Your task to perform on an android device: change the clock display to digital Image 0: 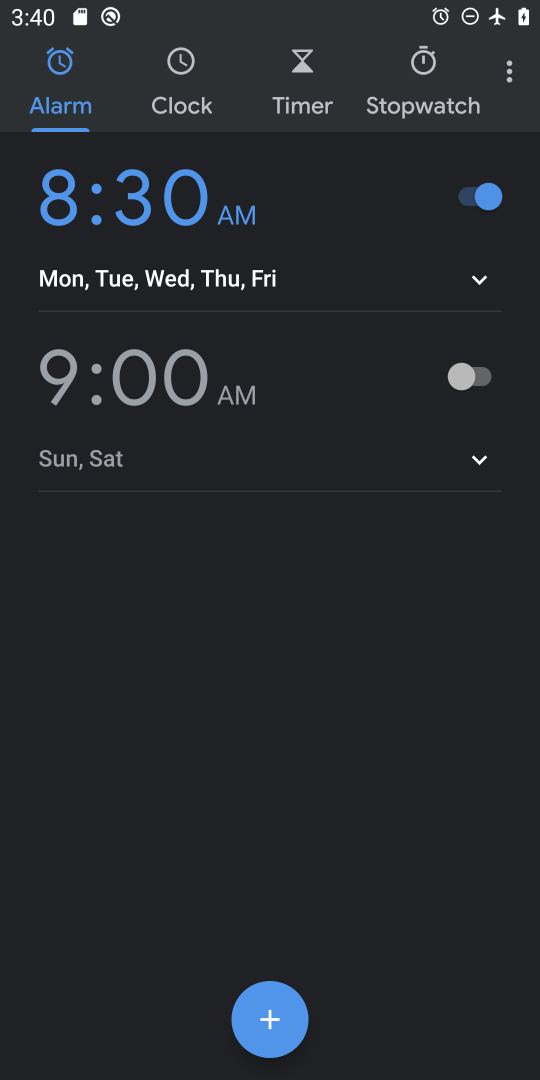
Step 0: click (514, 74)
Your task to perform on an android device: change the clock display to digital Image 1: 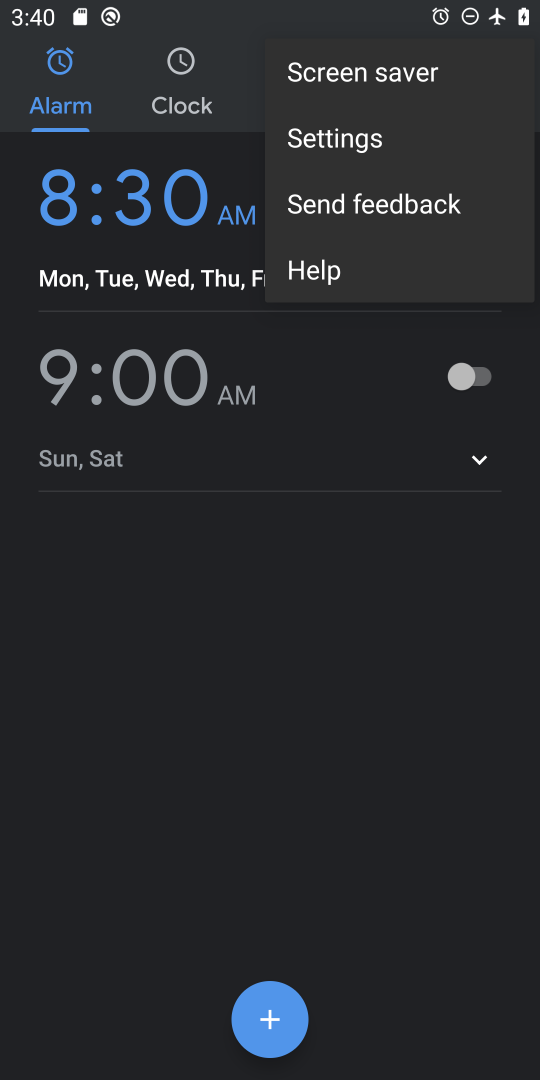
Step 1: click (412, 134)
Your task to perform on an android device: change the clock display to digital Image 2: 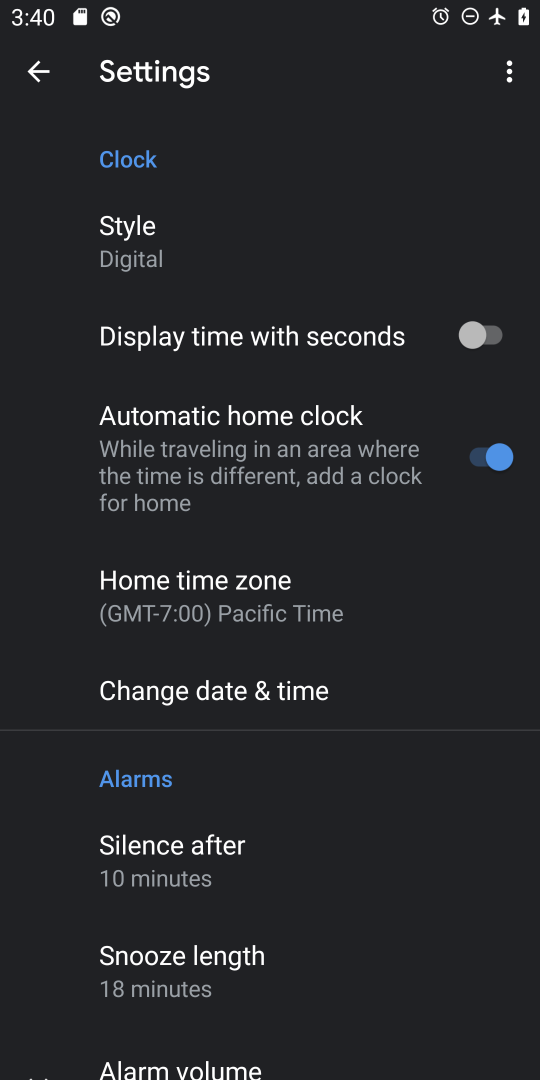
Step 2: click (144, 272)
Your task to perform on an android device: change the clock display to digital Image 3: 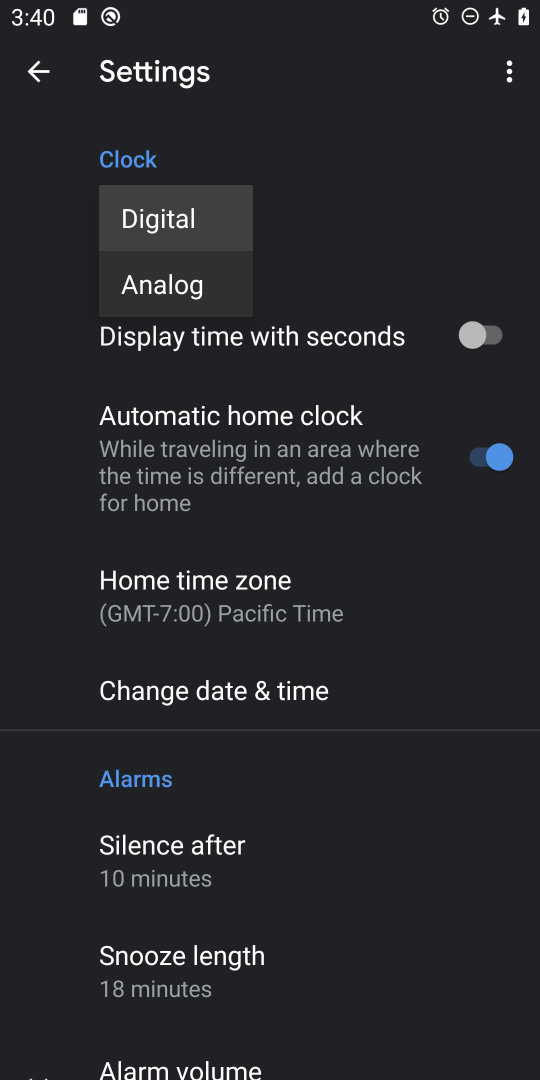
Step 3: task complete